Your task to perform on an android device: Check the weather Image 0: 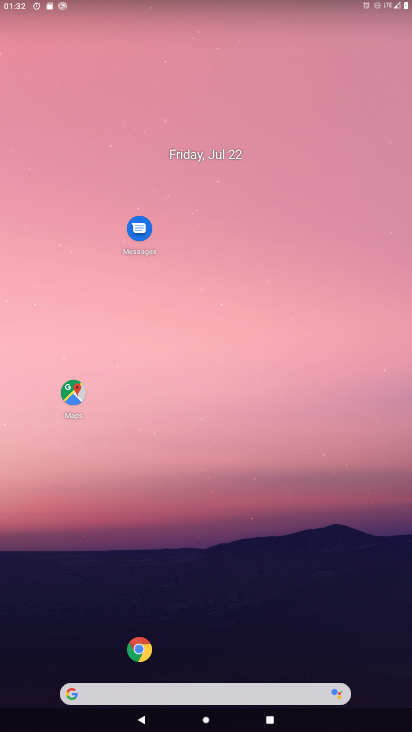
Step 0: click (133, 691)
Your task to perform on an android device: Check the weather Image 1: 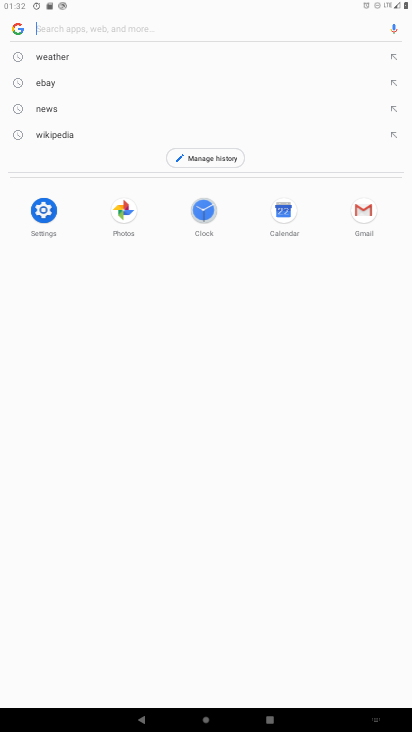
Step 1: click (55, 59)
Your task to perform on an android device: Check the weather Image 2: 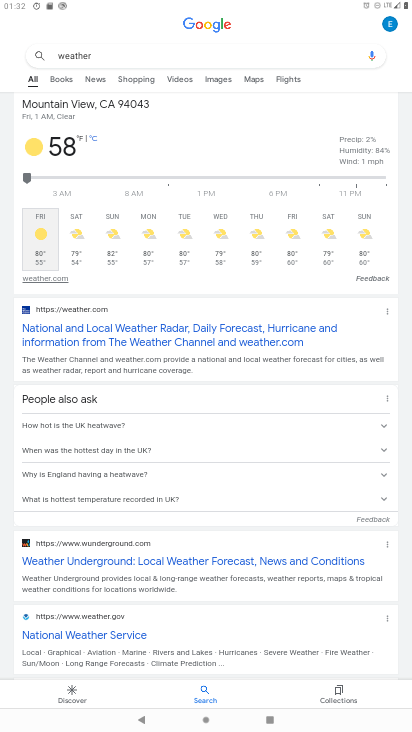
Step 2: task complete